Your task to perform on an android device: Is it going to rain this weekend? Image 0: 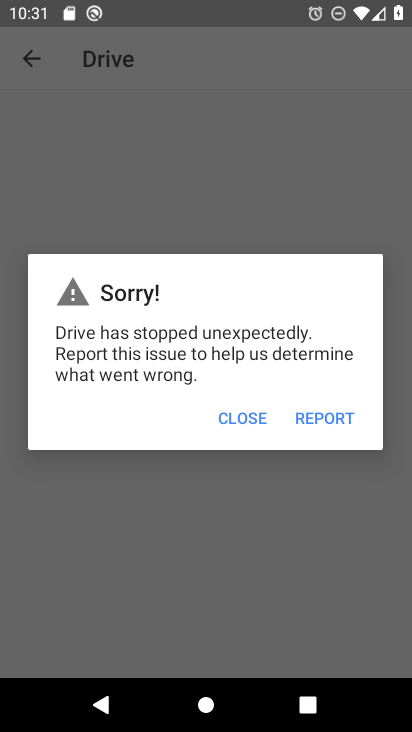
Step 0: press home button
Your task to perform on an android device: Is it going to rain this weekend? Image 1: 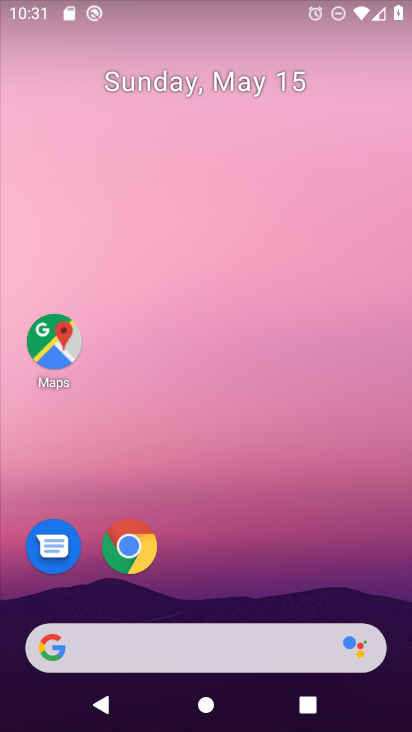
Step 1: drag from (318, 528) to (330, 97)
Your task to perform on an android device: Is it going to rain this weekend? Image 2: 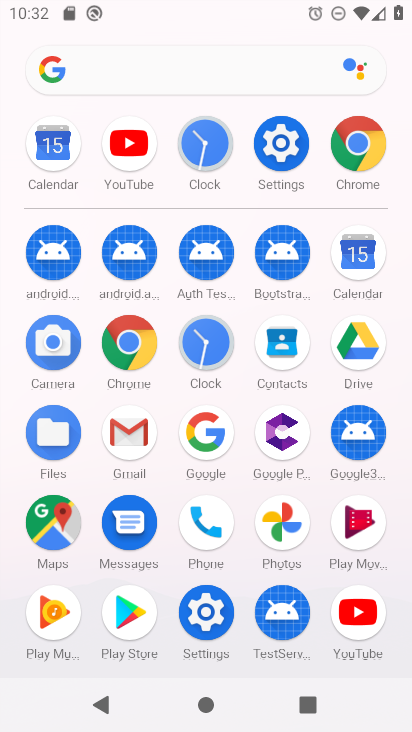
Step 2: click (123, 353)
Your task to perform on an android device: Is it going to rain this weekend? Image 3: 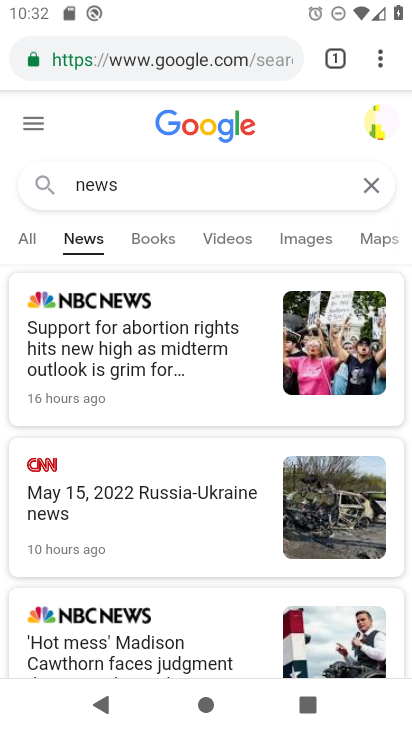
Step 3: click (213, 182)
Your task to perform on an android device: Is it going to rain this weekend? Image 4: 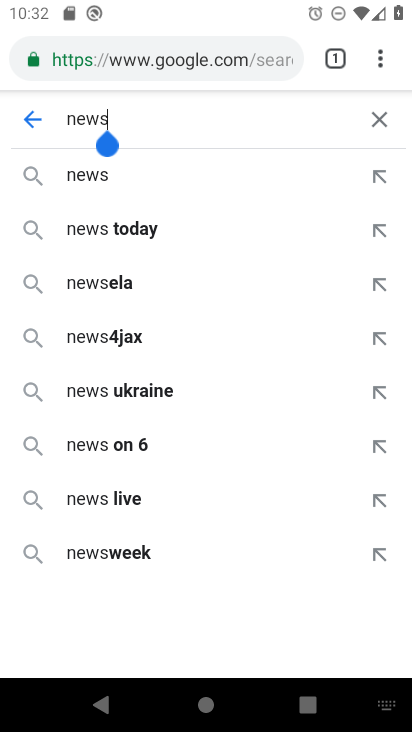
Step 4: click (379, 108)
Your task to perform on an android device: Is it going to rain this weekend? Image 5: 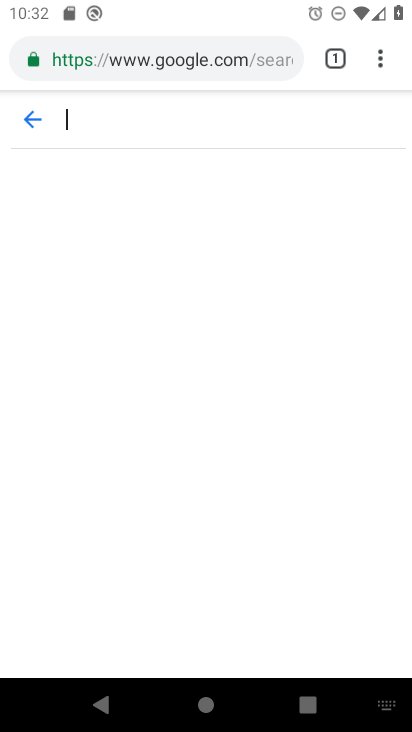
Step 5: type "weather"
Your task to perform on an android device: Is it going to rain this weekend? Image 6: 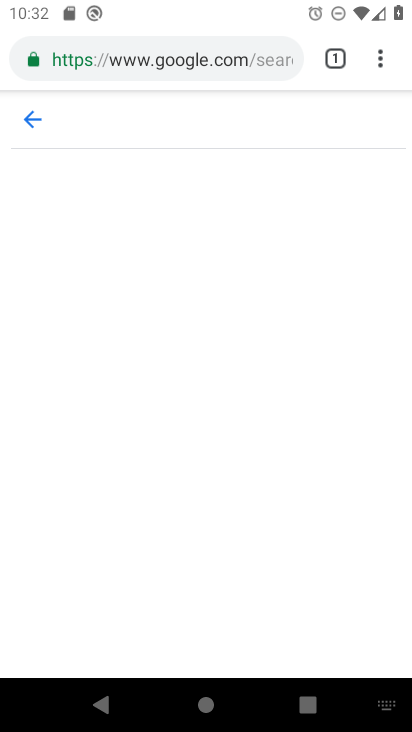
Step 6: type ""
Your task to perform on an android device: Is it going to rain this weekend? Image 7: 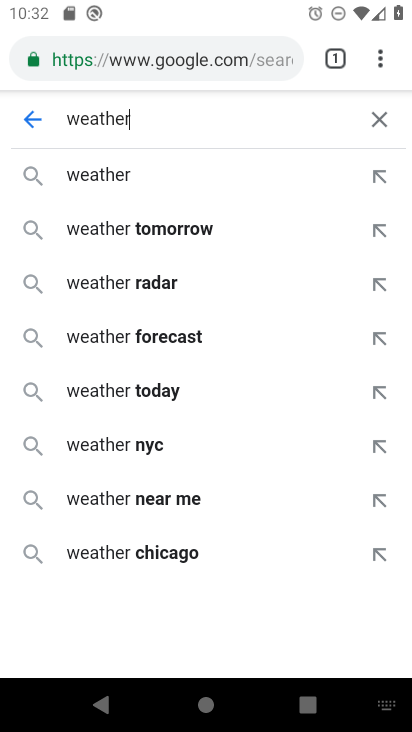
Step 7: click (118, 171)
Your task to perform on an android device: Is it going to rain this weekend? Image 8: 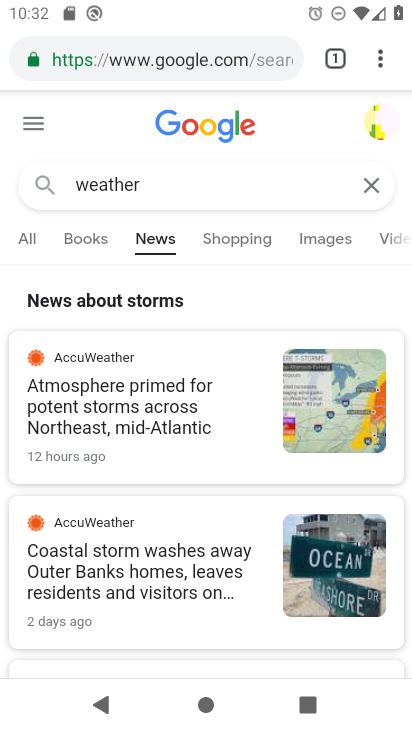
Step 8: click (29, 244)
Your task to perform on an android device: Is it going to rain this weekend? Image 9: 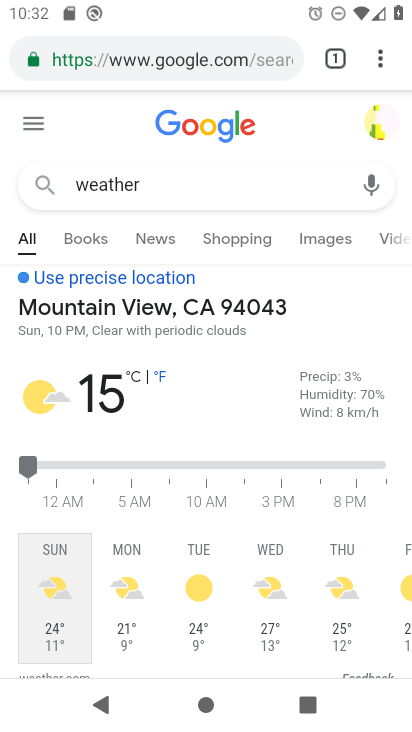
Step 9: task complete